Your task to perform on an android device: turn off priority inbox in the gmail app Image 0: 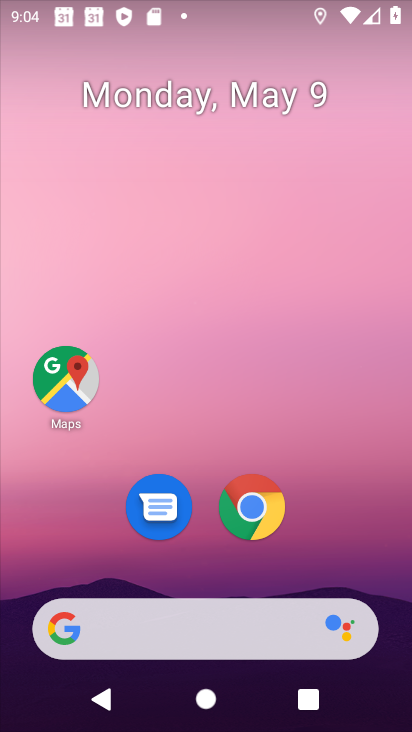
Step 0: drag from (116, 591) to (237, 64)
Your task to perform on an android device: turn off priority inbox in the gmail app Image 1: 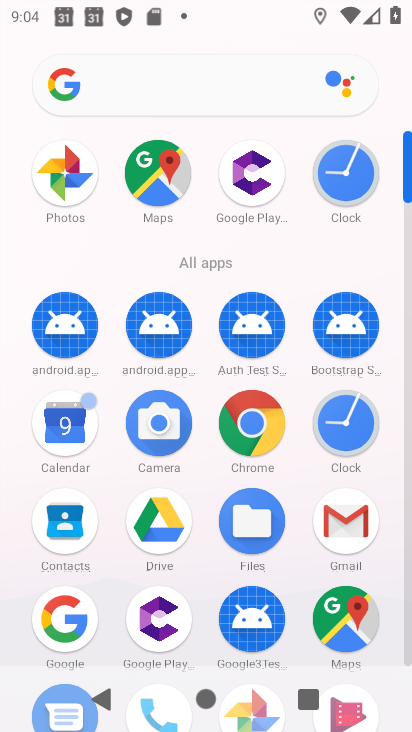
Step 1: click (346, 522)
Your task to perform on an android device: turn off priority inbox in the gmail app Image 2: 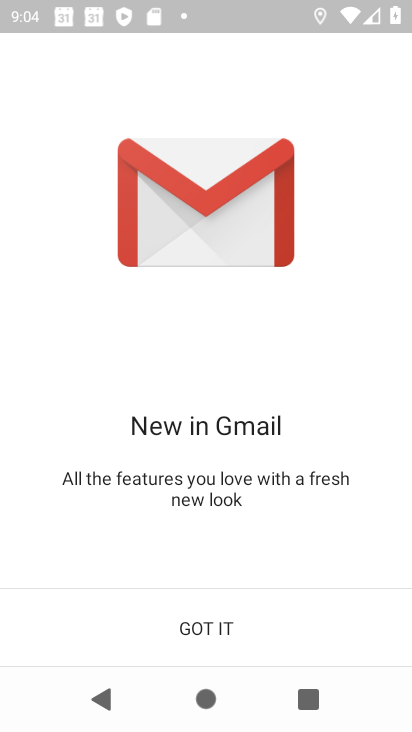
Step 2: click (273, 649)
Your task to perform on an android device: turn off priority inbox in the gmail app Image 3: 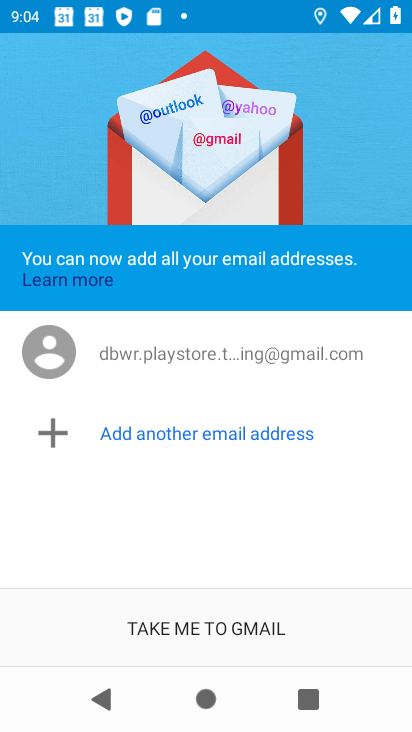
Step 3: click (262, 635)
Your task to perform on an android device: turn off priority inbox in the gmail app Image 4: 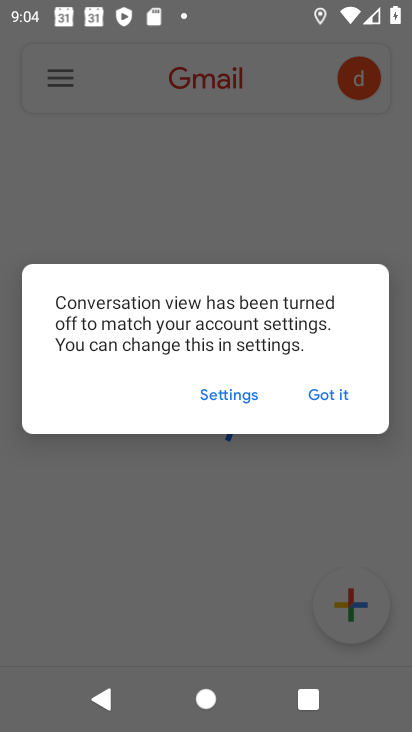
Step 4: click (351, 398)
Your task to perform on an android device: turn off priority inbox in the gmail app Image 5: 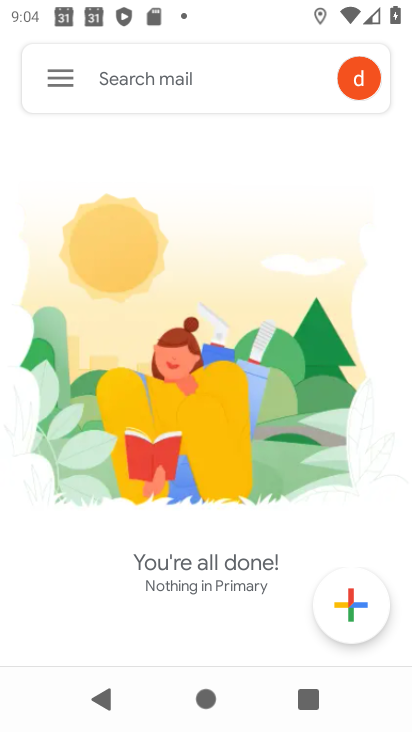
Step 5: click (72, 86)
Your task to perform on an android device: turn off priority inbox in the gmail app Image 6: 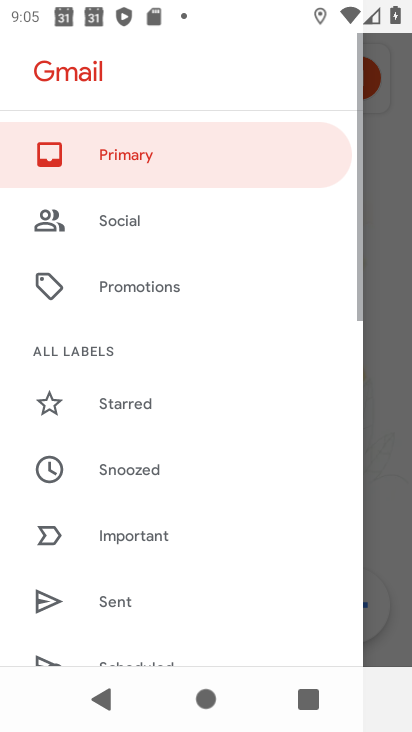
Step 6: drag from (129, 669) to (265, 165)
Your task to perform on an android device: turn off priority inbox in the gmail app Image 7: 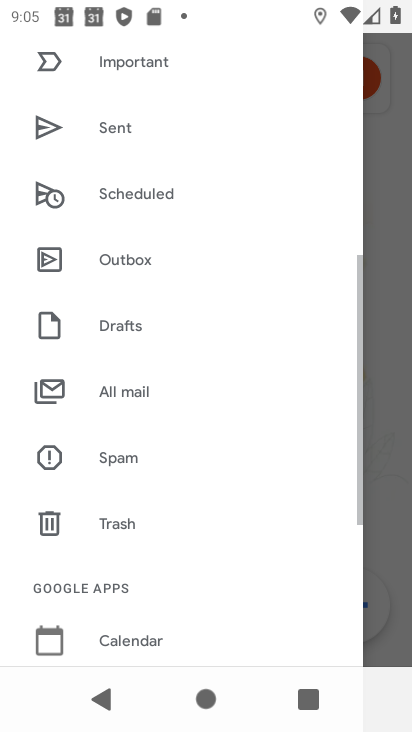
Step 7: drag from (131, 631) to (239, 158)
Your task to perform on an android device: turn off priority inbox in the gmail app Image 8: 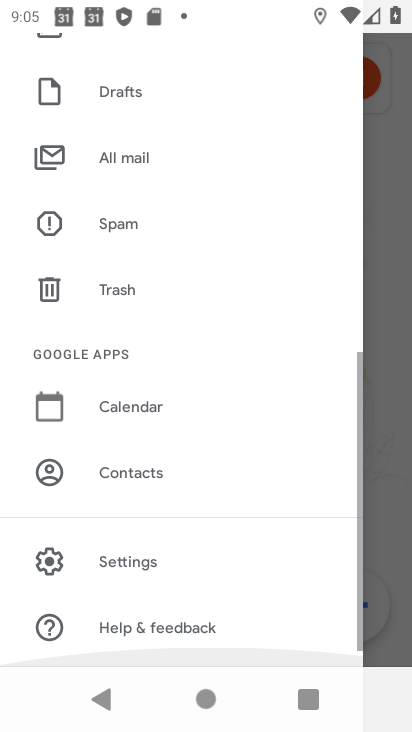
Step 8: click (139, 558)
Your task to perform on an android device: turn off priority inbox in the gmail app Image 9: 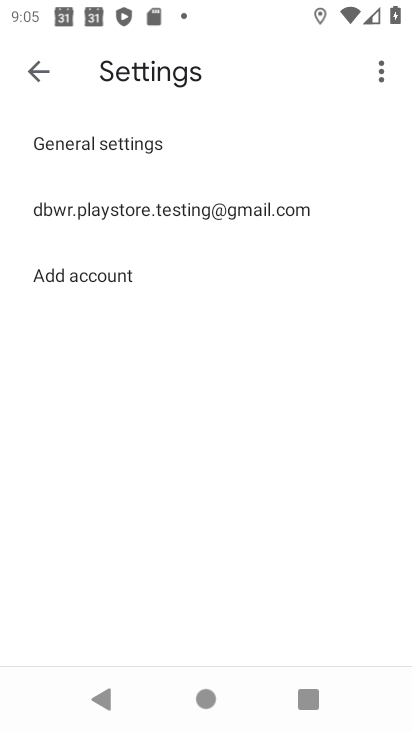
Step 9: click (252, 216)
Your task to perform on an android device: turn off priority inbox in the gmail app Image 10: 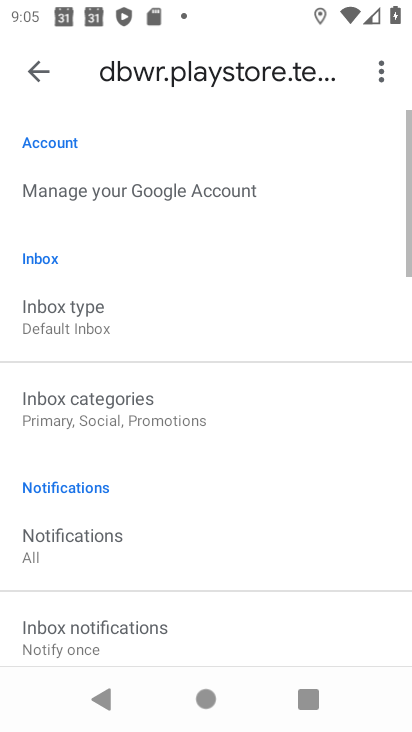
Step 10: drag from (154, 588) to (271, 106)
Your task to perform on an android device: turn off priority inbox in the gmail app Image 11: 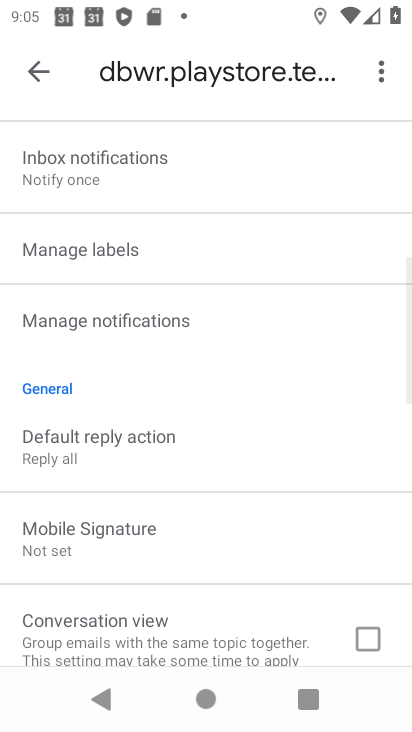
Step 11: drag from (221, 380) to (190, 667)
Your task to perform on an android device: turn off priority inbox in the gmail app Image 12: 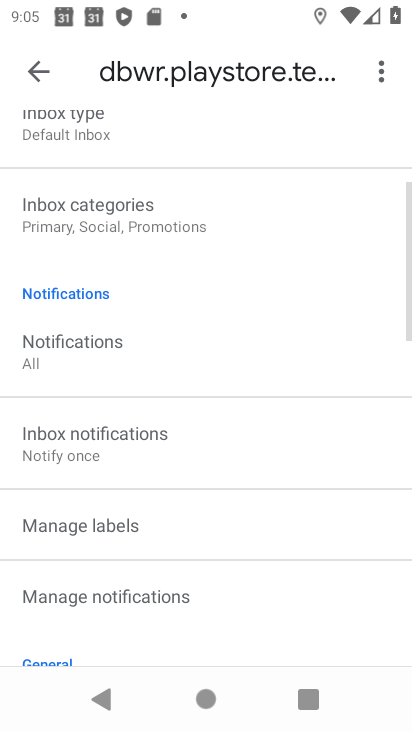
Step 12: drag from (109, 241) to (85, 557)
Your task to perform on an android device: turn off priority inbox in the gmail app Image 13: 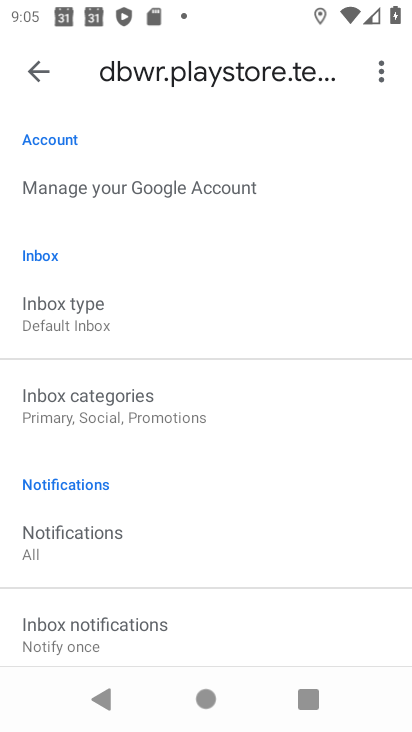
Step 13: click (100, 315)
Your task to perform on an android device: turn off priority inbox in the gmail app Image 14: 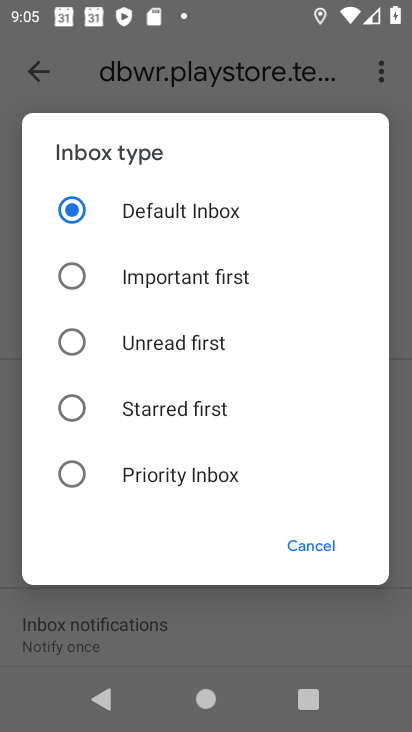
Step 14: task complete